Your task to perform on an android device: turn on data saver in the chrome app Image 0: 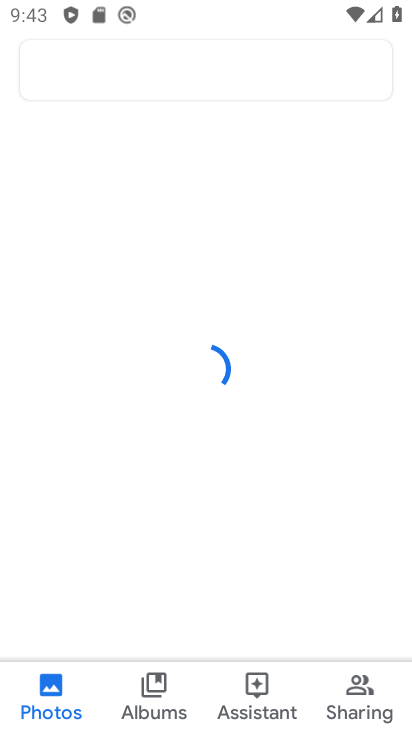
Step 0: press home button
Your task to perform on an android device: turn on data saver in the chrome app Image 1: 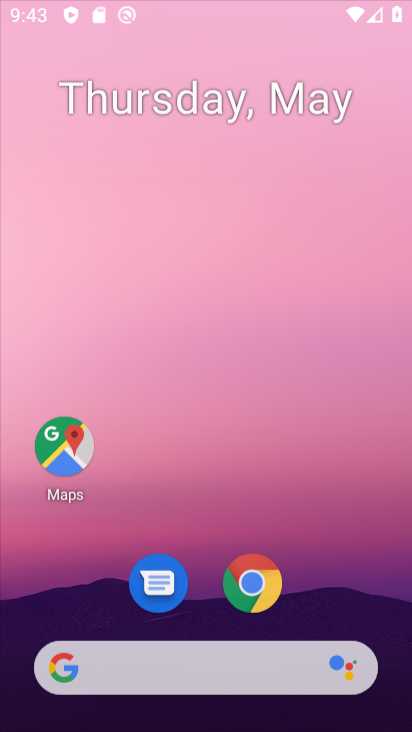
Step 1: drag from (391, 668) to (310, 61)
Your task to perform on an android device: turn on data saver in the chrome app Image 2: 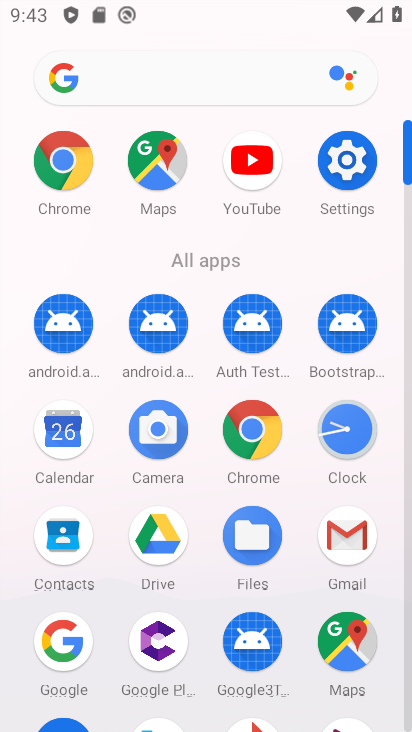
Step 2: click (45, 168)
Your task to perform on an android device: turn on data saver in the chrome app Image 3: 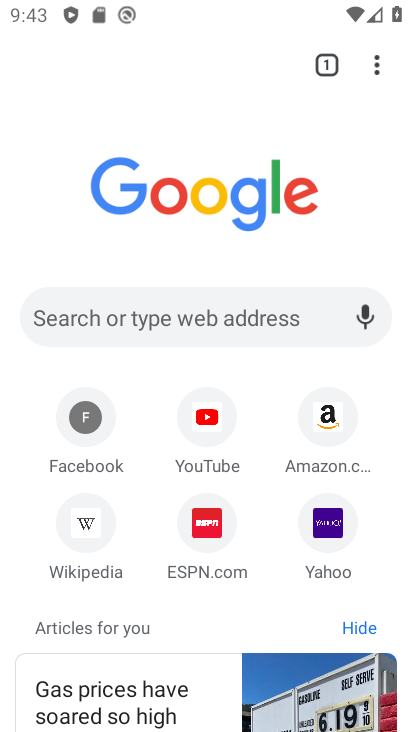
Step 3: click (377, 70)
Your task to perform on an android device: turn on data saver in the chrome app Image 4: 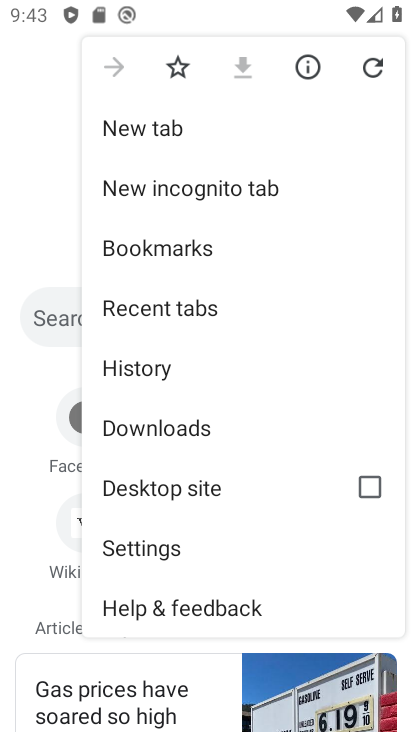
Step 4: click (165, 553)
Your task to perform on an android device: turn on data saver in the chrome app Image 5: 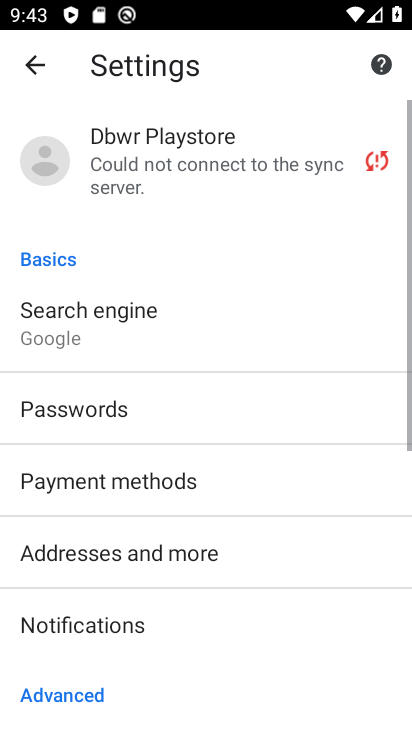
Step 5: drag from (194, 637) to (199, 184)
Your task to perform on an android device: turn on data saver in the chrome app Image 6: 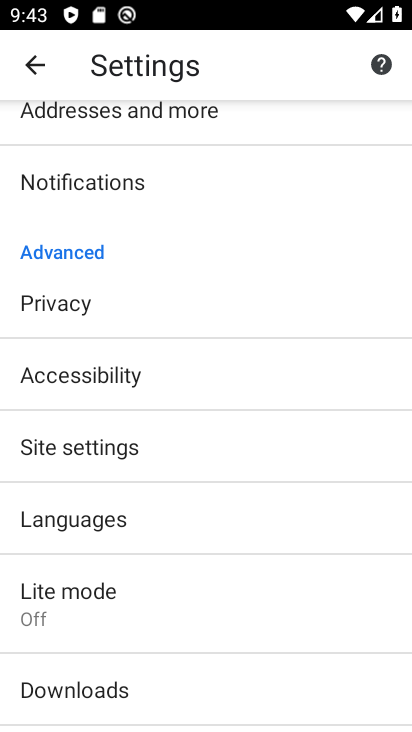
Step 6: click (145, 583)
Your task to perform on an android device: turn on data saver in the chrome app Image 7: 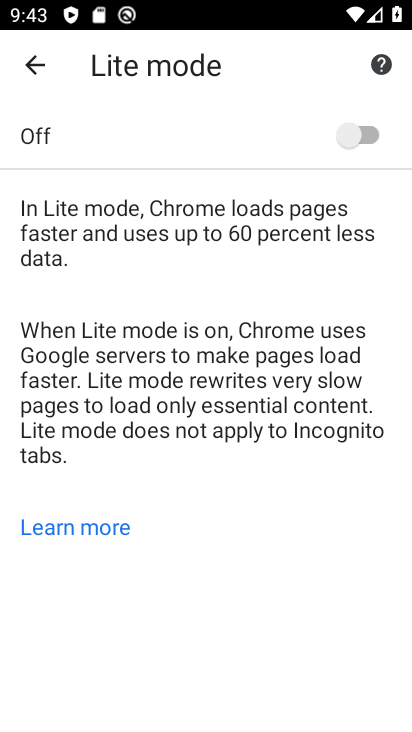
Step 7: click (360, 125)
Your task to perform on an android device: turn on data saver in the chrome app Image 8: 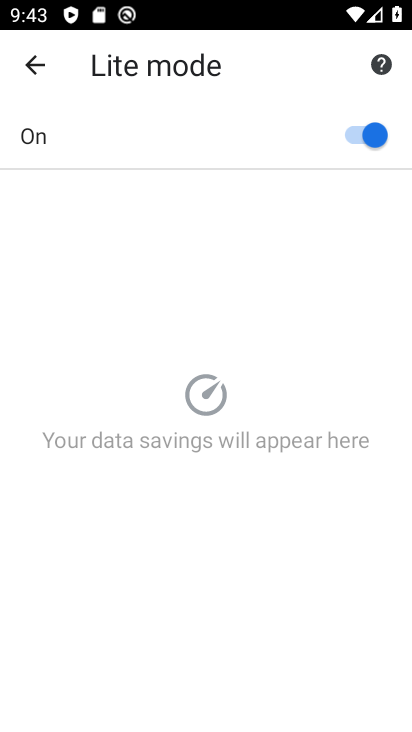
Step 8: task complete